Your task to perform on an android device: turn pop-ups off in chrome Image 0: 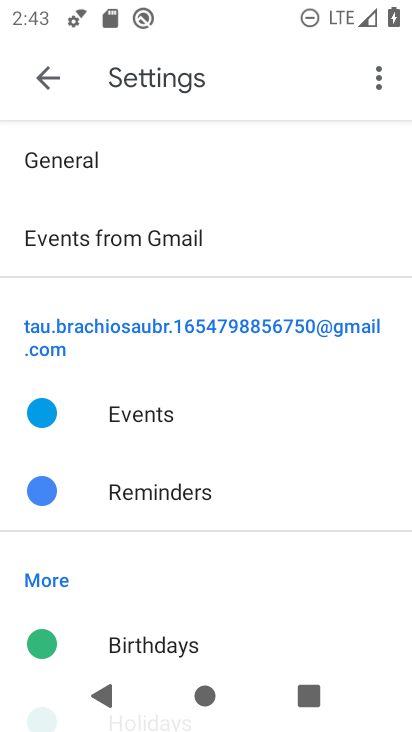
Step 0: press home button
Your task to perform on an android device: turn pop-ups off in chrome Image 1: 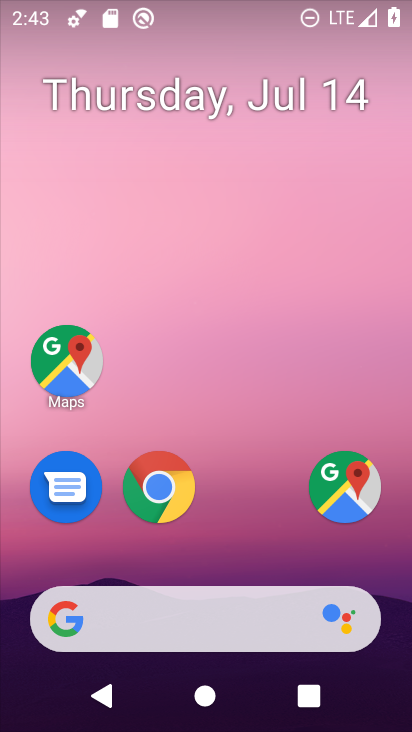
Step 1: drag from (254, 528) to (269, 108)
Your task to perform on an android device: turn pop-ups off in chrome Image 2: 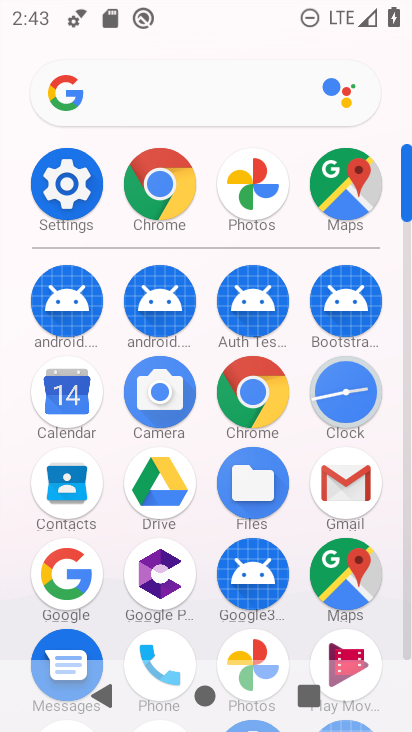
Step 2: click (259, 390)
Your task to perform on an android device: turn pop-ups off in chrome Image 3: 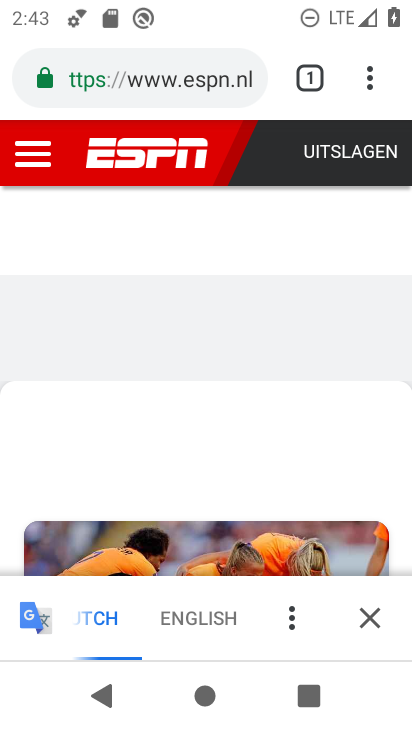
Step 3: click (370, 84)
Your task to perform on an android device: turn pop-ups off in chrome Image 4: 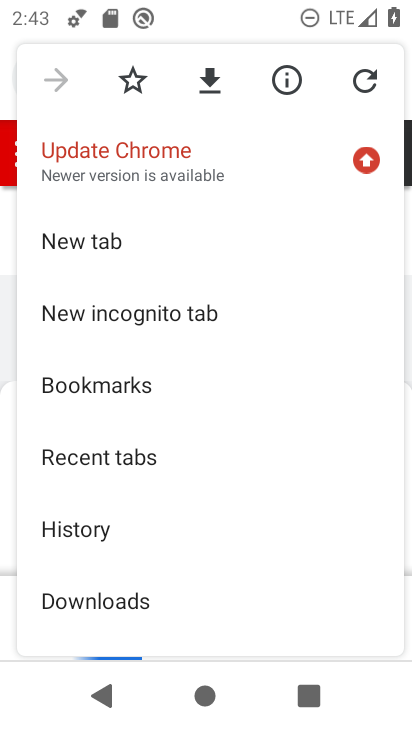
Step 4: drag from (297, 511) to (312, 443)
Your task to perform on an android device: turn pop-ups off in chrome Image 5: 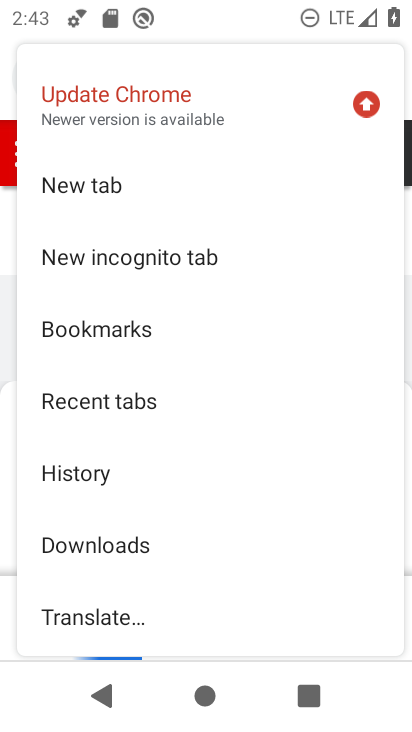
Step 5: drag from (325, 505) to (333, 446)
Your task to perform on an android device: turn pop-ups off in chrome Image 6: 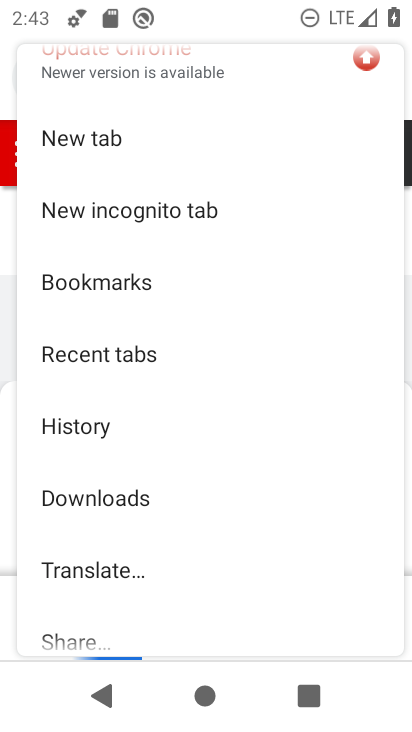
Step 6: drag from (310, 529) to (320, 454)
Your task to perform on an android device: turn pop-ups off in chrome Image 7: 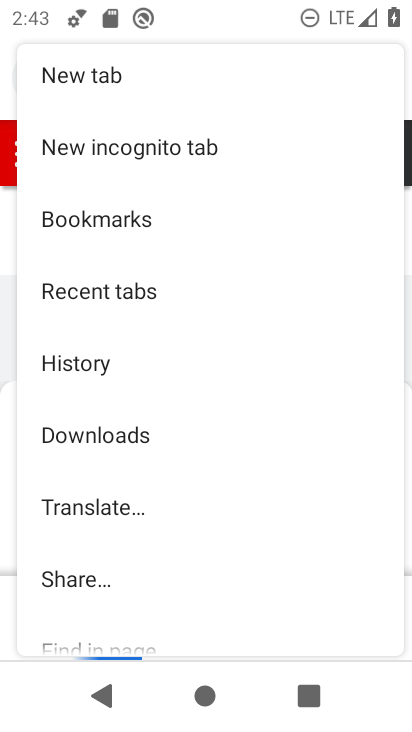
Step 7: drag from (312, 529) to (322, 445)
Your task to perform on an android device: turn pop-ups off in chrome Image 8: 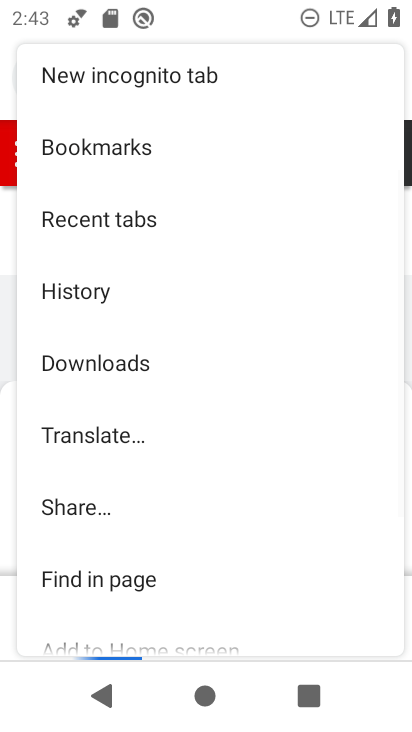
Step 8: drag from (317, 540) to (324, 459)
Your task to perform on an android device: turn pop-ups off in chrome Image 9: 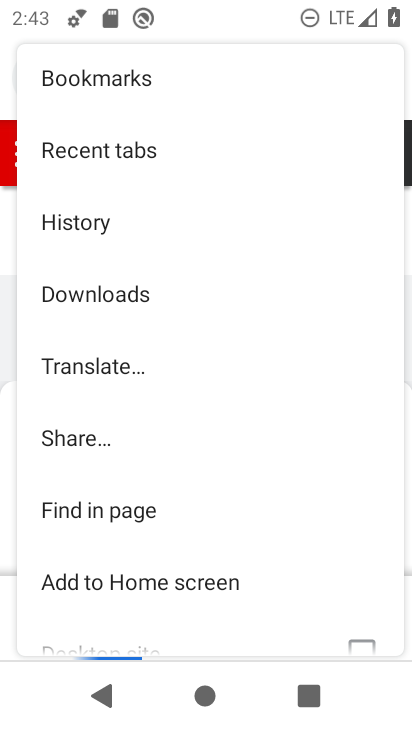
Step 9: drag from (320, 514) to (323, 414)
Your task to perform on an android device: turn pop-ups off in chrome Image 10: 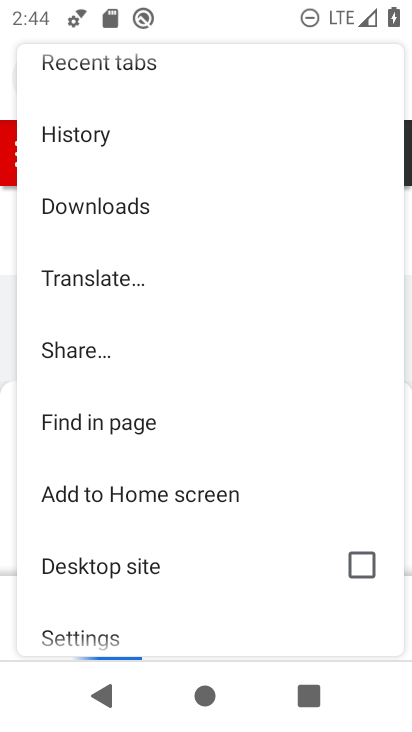
Step 10: drag from (290, 542) to (305, 403)
Your task to perform on an android device: turn pop-ups off in chrome Image 11: 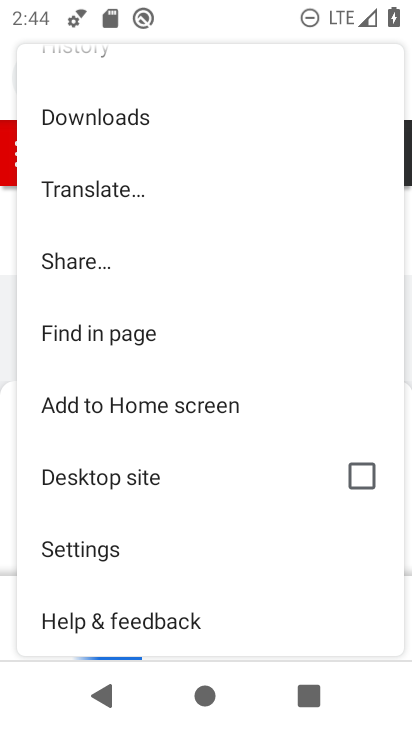
Step 11: click (162, 548)
Your task to perform on an android device: turn pop-ups off in chrome Image 12: 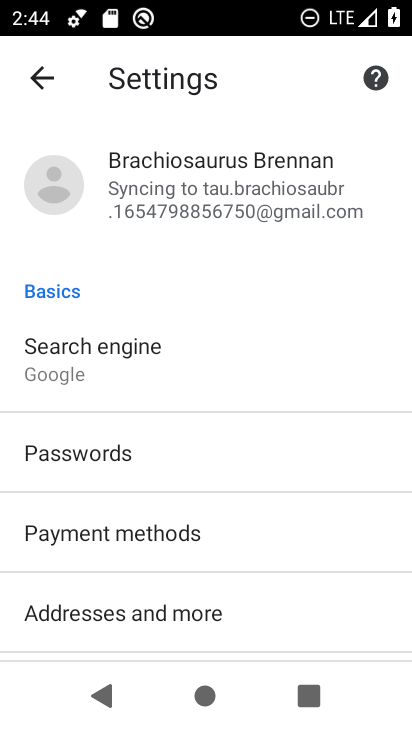
Step 12: drag from (333, 560) to (344, 468)
Your task to perform on an android device: turn pop-ups off in chrome Image 13: 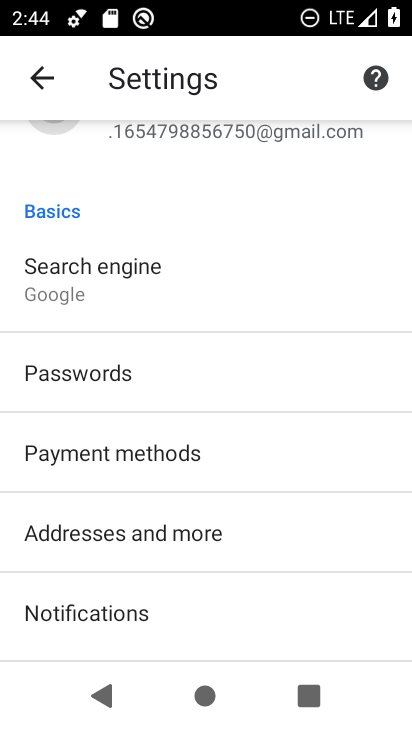
Step 13: drag from (334, 574) to (334, 486)
Your task to perform on an android device: turn pop-ups off in chrome Image 14: 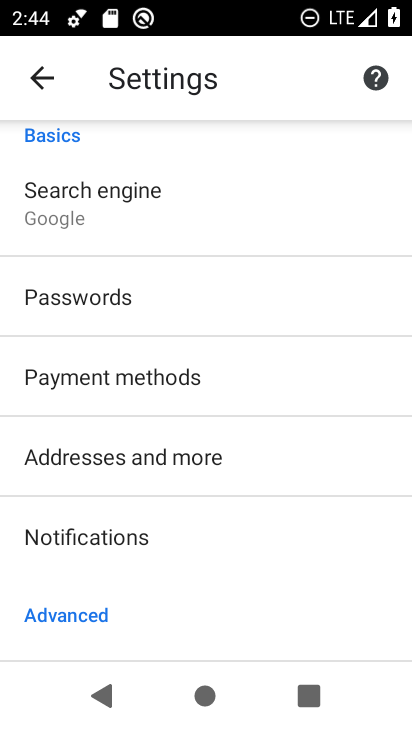
Step 14: drag from (316, 567) to (326, 489)
Your task to perform on an android device: turn pop-ups off in chrome Image 15: 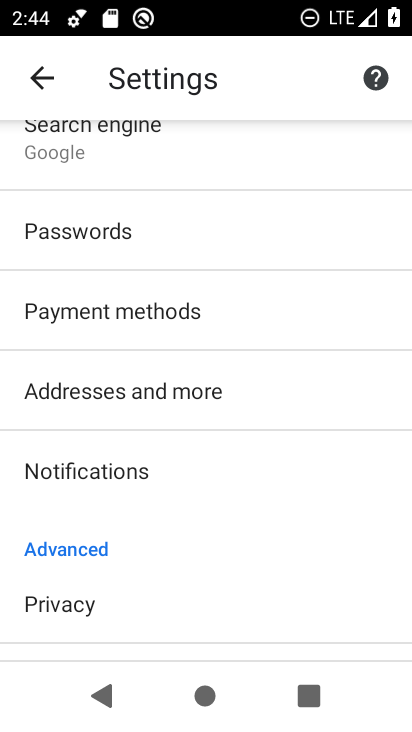
Step 15: drag from (312, 571) to (320, 476)
Your task to perform on an android device: turn pop-ups off in chrome Image 16: 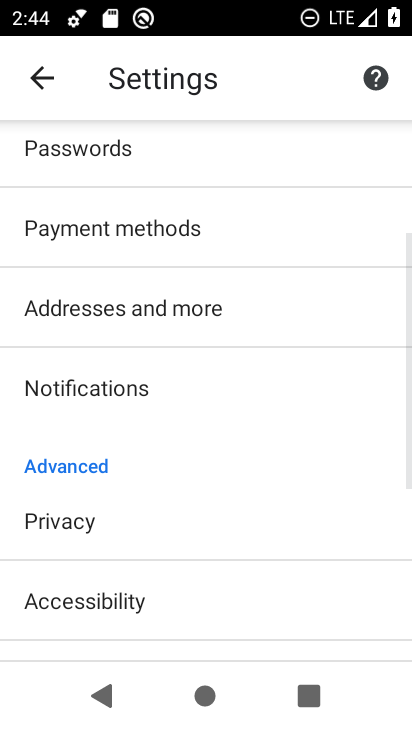
Step 16: drag from (320, 566) to (326, 477)
Your task to perform on an android device: turn pop-ups off in chrome Image 17: 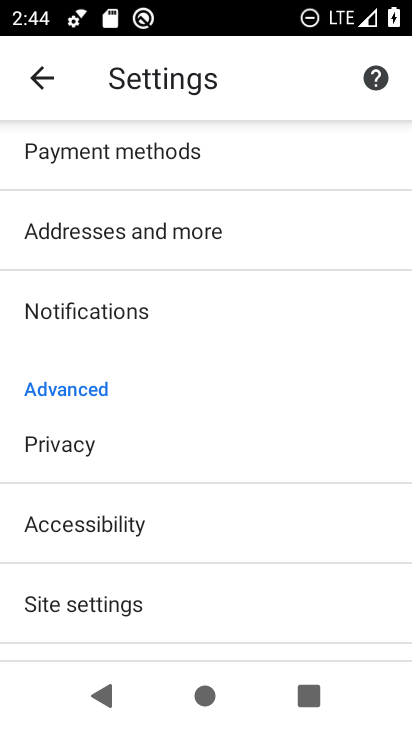
Step 17: drag from (311, 562) to (311, 386)
Your task to perform on an android device: turn pop-ups off in chrome Image 18: 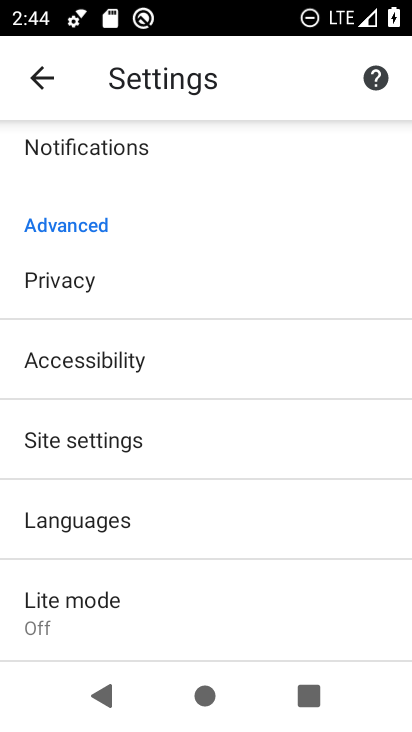
Step 18: drag from (276, 532) to (299, 364)
Your task to perform on an android device: turn pop-ups off in chrome Image 19: 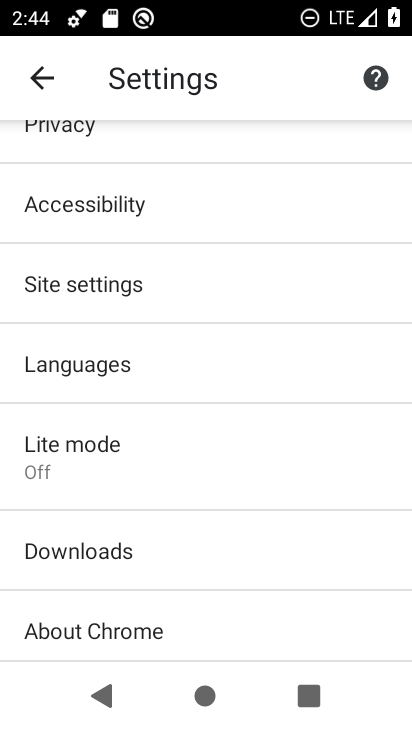
Step 19: drag from (286, 462) to (296, 349)
Your task to perform on an android device: turn pop-ups off in chrome Image 20: 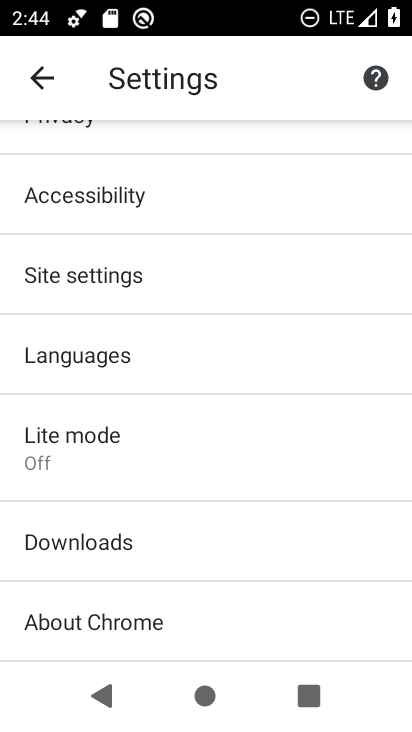
Step 20: click (205, 284)
Your task to perform on an android device: turn pop-ups off in chrome Image 21: 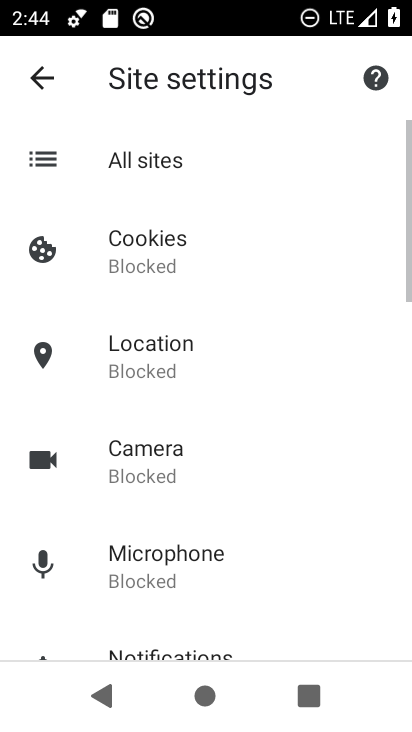
Step 21: drag from (302, 466) to (305, 379)
Your task to perform on an android device: turn pop-ups off in chrome Image 22: 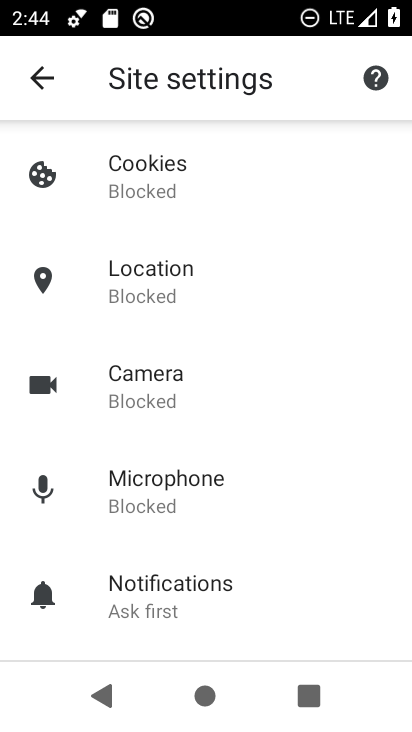
Step 22: drag from (300, 499) to (307, 425)
Your task to perform on an android device: turn pop-ups off in chrome Image 23: 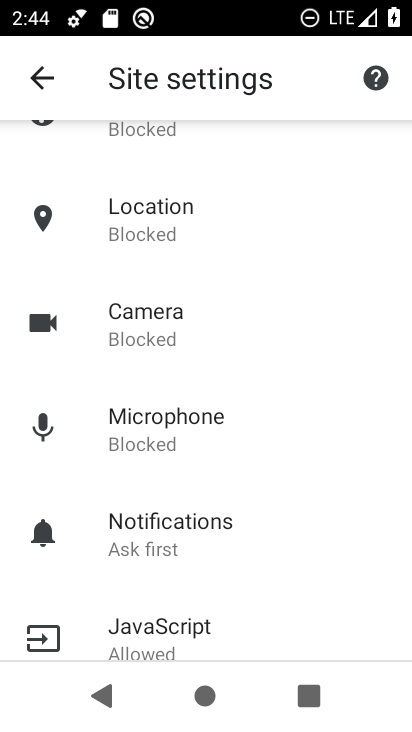
Step 23: drag from (305, 522) to (309, 463)
Your task to perform on an android device: turn pop-ups off in chrome Image 24: 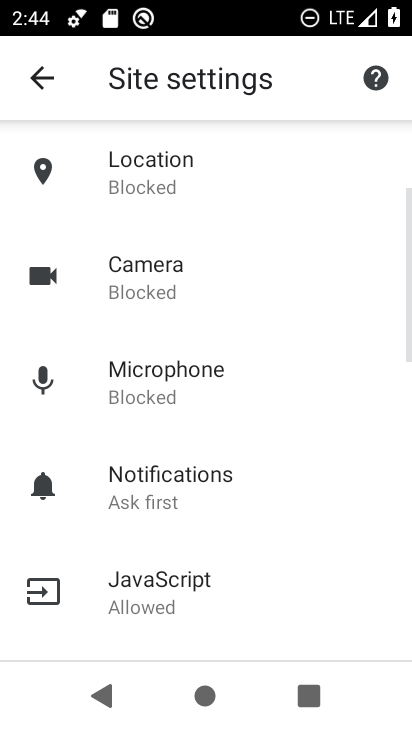
Step 24: drag from (307, 524) to (309, 447)
Your task to perform on an android device: turn pop-ups off in chrome Image 25: 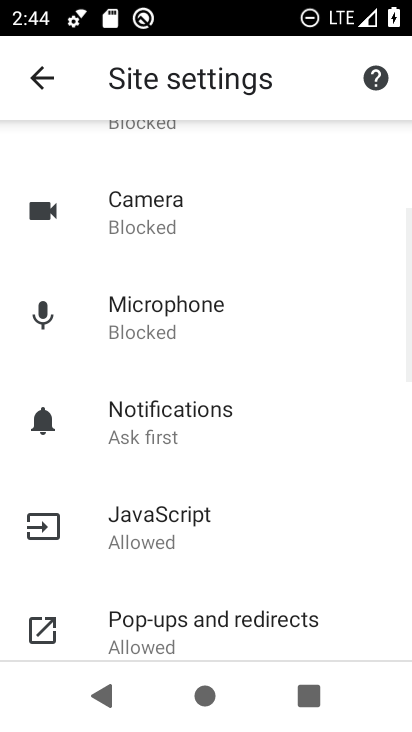
Step 25: drag from (305, 524) to (312, 425)
Your task to perform on an android device: turn pop-ups off in chrome Image 26: 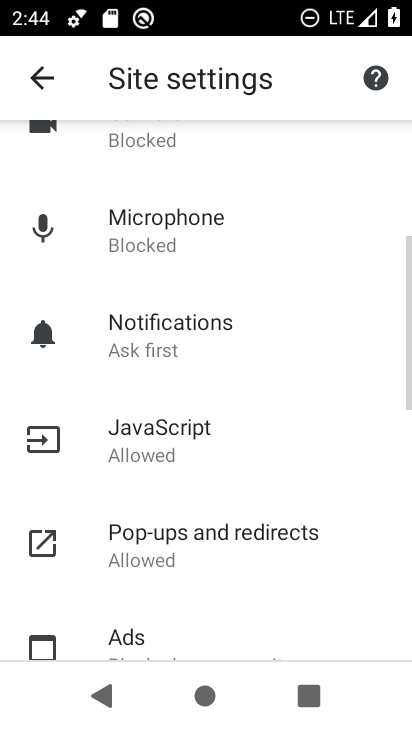
Step 26: drag from (343, 558) to (349, 456)
Your task to perform on an android device: turn pop-ups off in chrome Image 27: 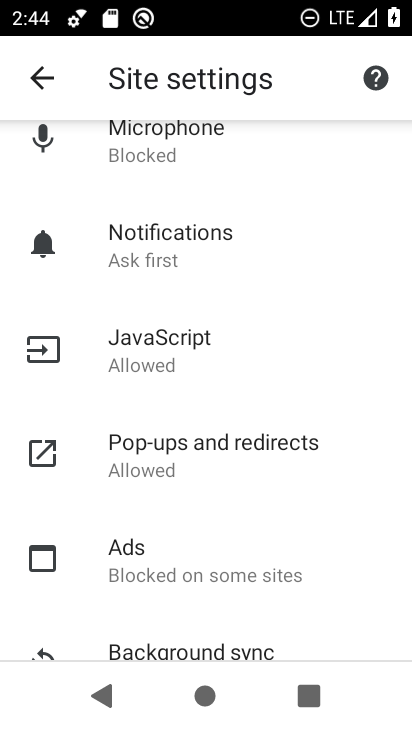
Step 27: click (292, 469)
Your task to perform on an android device: turn pop-ups off in chrome Image 28: 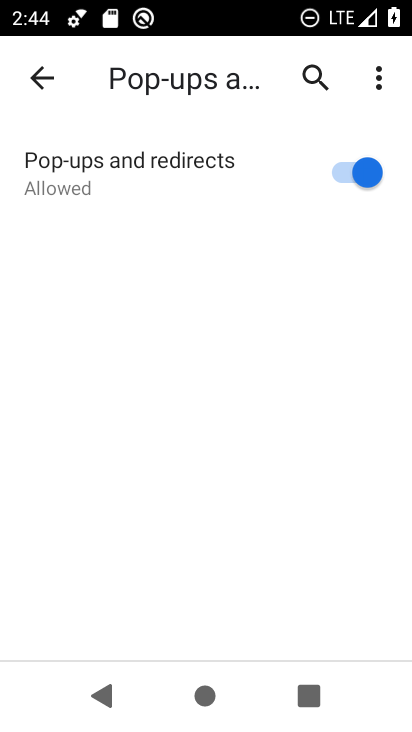
Step 28: click (357, 167)
Your task to perform on an android device: turn pop-ups off in chrome Image 29: 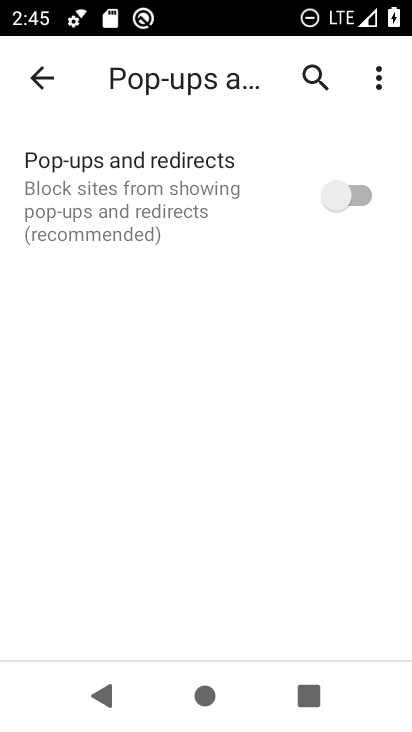
Step 29: task complete